Your task to perform on an android device: add a contact Image 0: 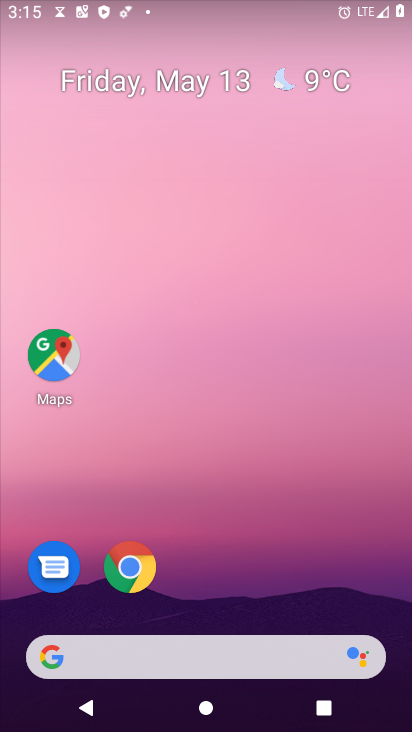
Step 0: drag from (256, 620) to (214, 11)
Your task to perform on an android device: add a contact Image 1: 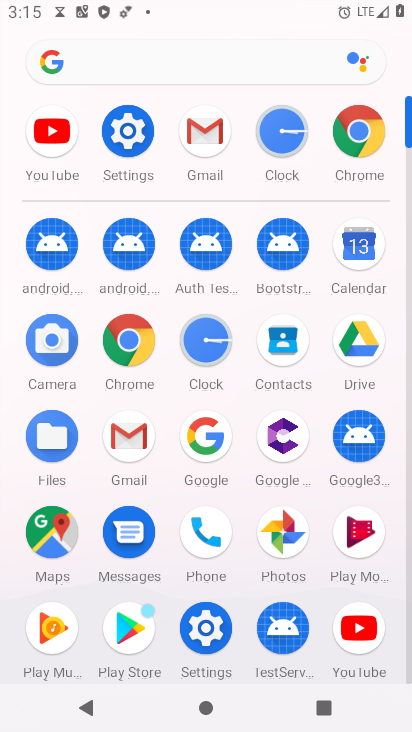
Step 1: click (281, 344)
Your task to perform on an android device: add a contact Image 2: 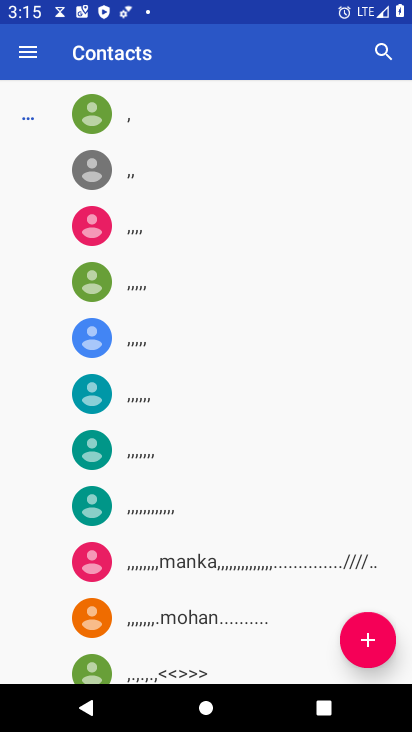
Step 2: click (358, 651)
Your task to perform on an android device: add a contact Image 3: 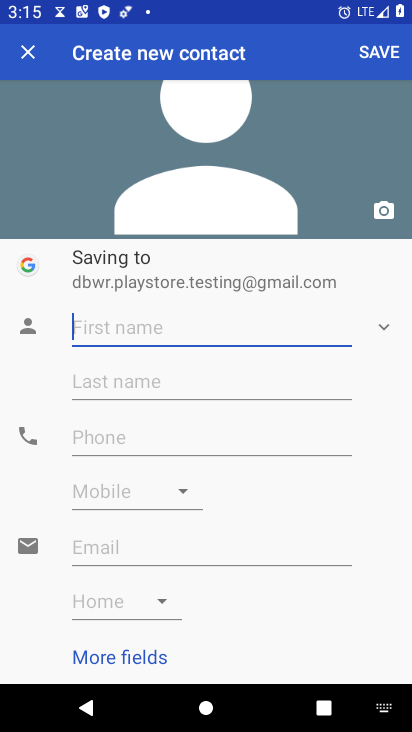
Step 3: type "mansi"
Your task to perform on an android device: add a contact Image 4: 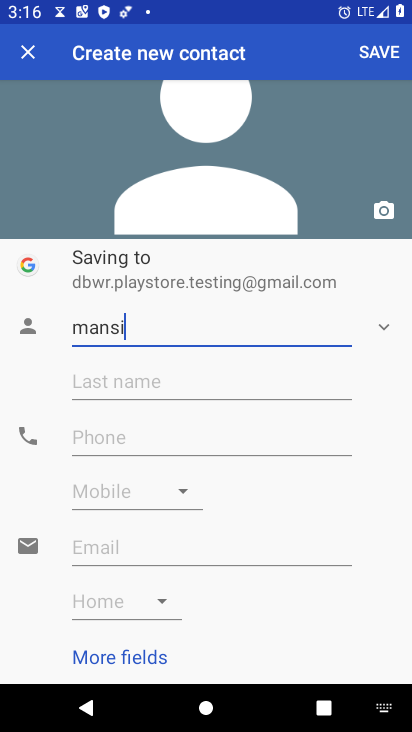
Step 4: click (146, 436)
Your task to perform on an android device: add a contact Image 5: 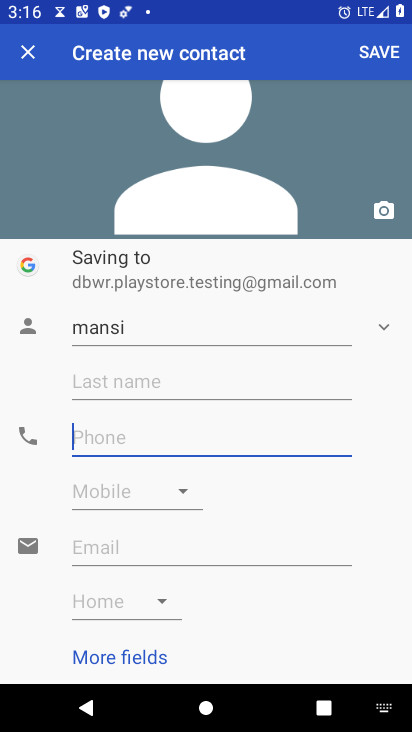
Step 5: type "98765433"
Your task to perform on an android device: add a contact Image 6: 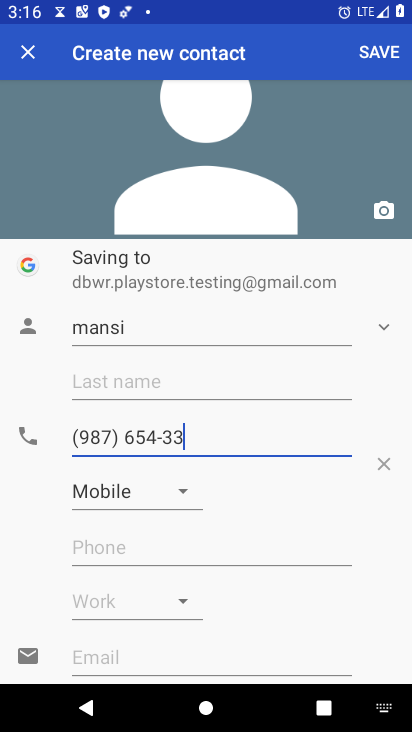
Step 6: click (388, 50)
Your task to perform on an android device: add a contact Image 7: 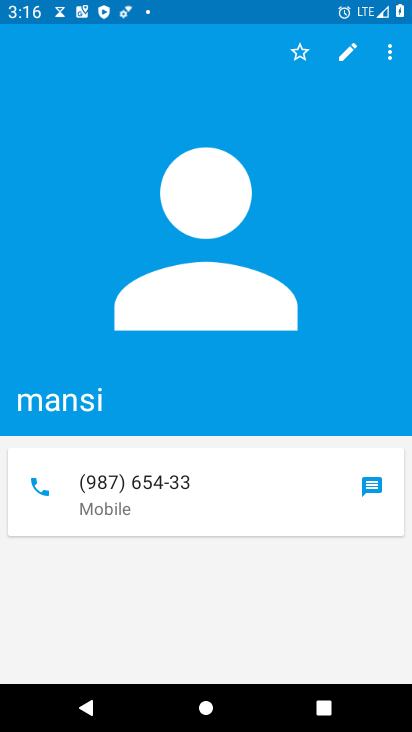
Step 7: task complete